Your task to perform on an android device: Open Google Maps Image 0: 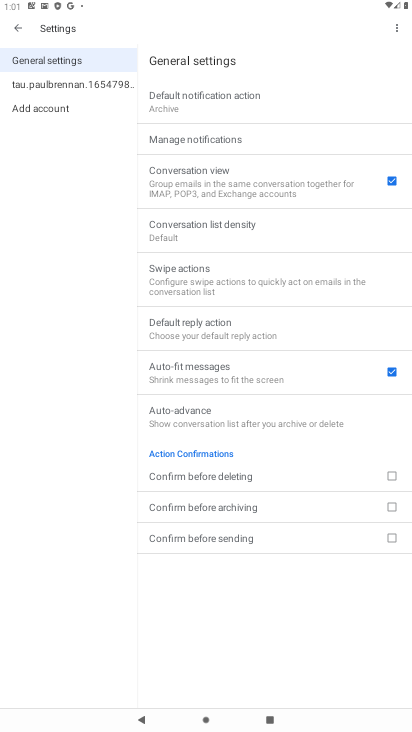
Step 0: press home button
Your task to perform on an android device: Open Google Maps Image 1: 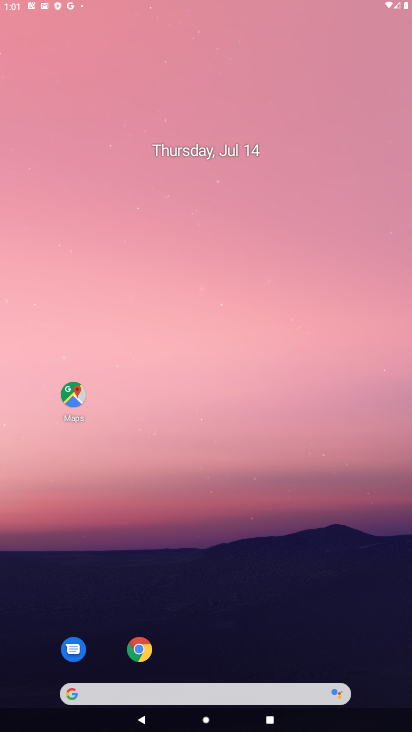
Step 1: drag from (389, 661) to (181, 54)
Your task to perform on an android device: Open Google Maps Image 2: 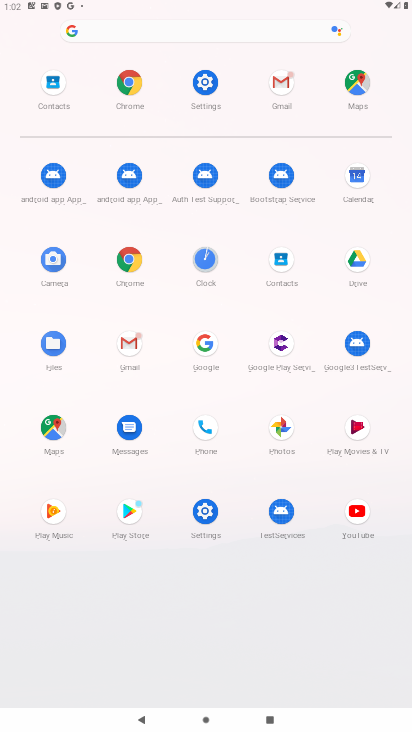
Step 2: click (43, 420)
Your task to perform on an android device: Open Google Maps Image 3: 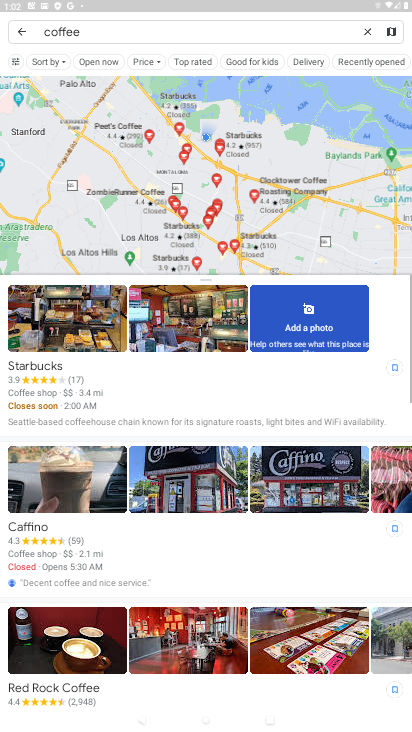
Step 3: click (371, 31)
Your task to perform on an android device: Open Google Maps Image 4: 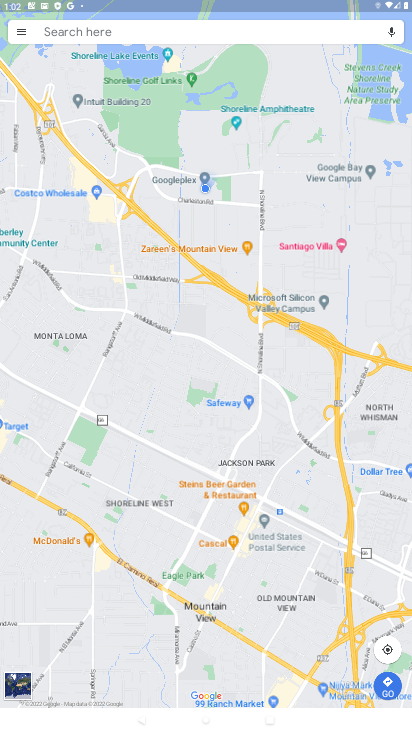
Step 4: task complete